Your task to perform on an android device: snooze an email in the gmail app Image 0: 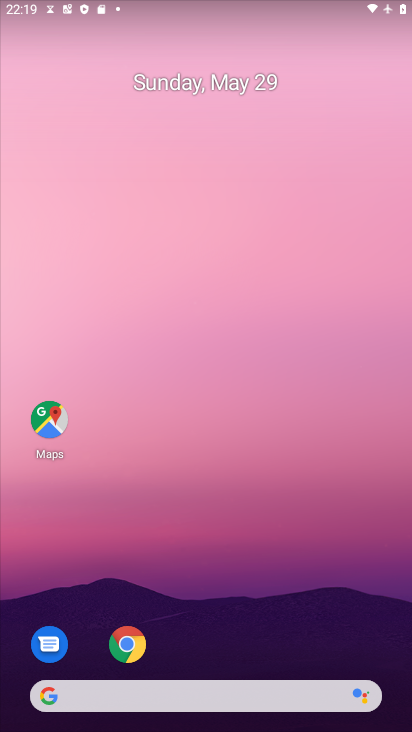
Step 0: drag from (234, 572) to (182, 181)
Your task to perform on an android device: snooze an email in the gmail app Image 1: 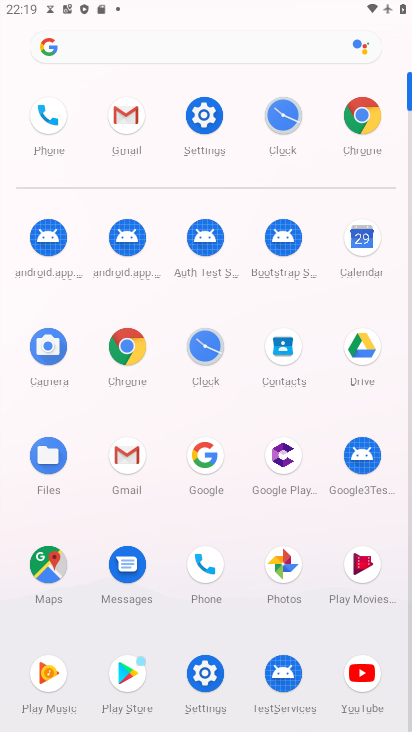
Step 1: click (127, 449)
Your task to perform on an android device: snooze an email in the gmail app Image 2: 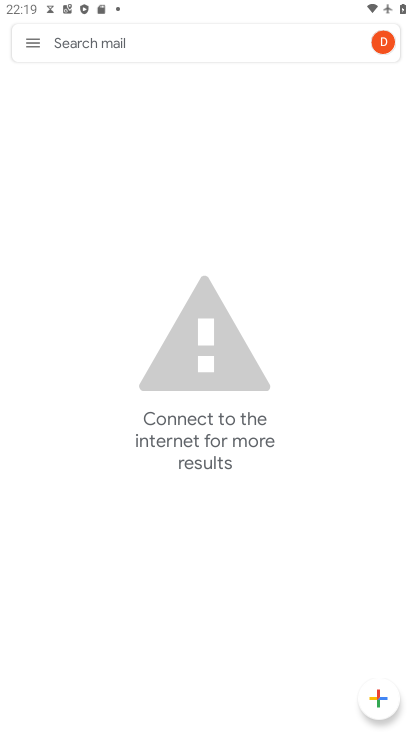
Step 2: click (30, 36)
Your task to perform on an android device: snooze an email in the gmail app Image 3: 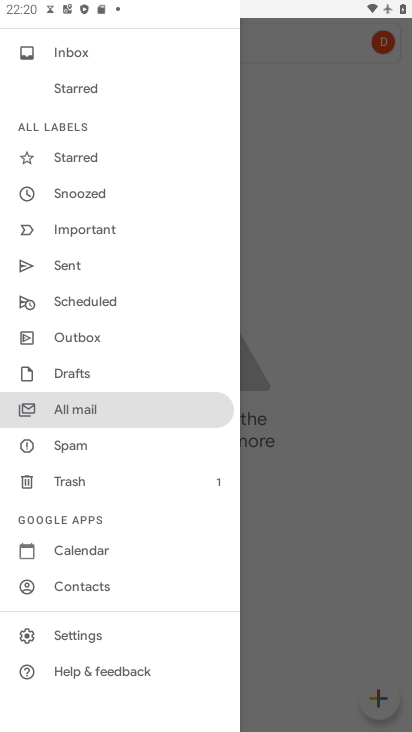
Step 3: click (109, 192)
Your task to perform on an android device: snooze an email in the gmail app Image 4: 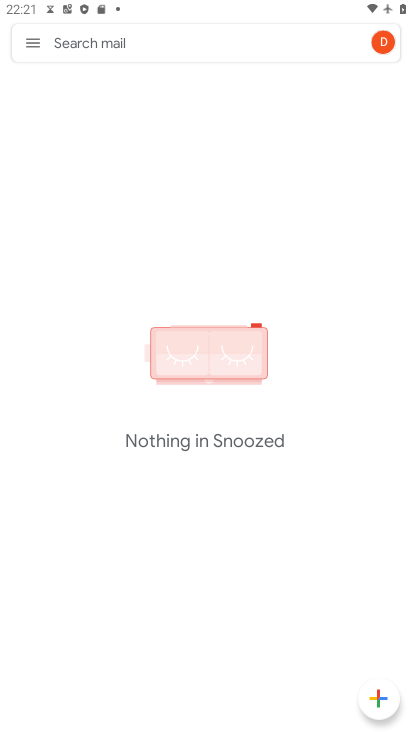
Step 4: task complete